Your task to perform on an android device: turn off priority inbox in the gmail app Image 0: 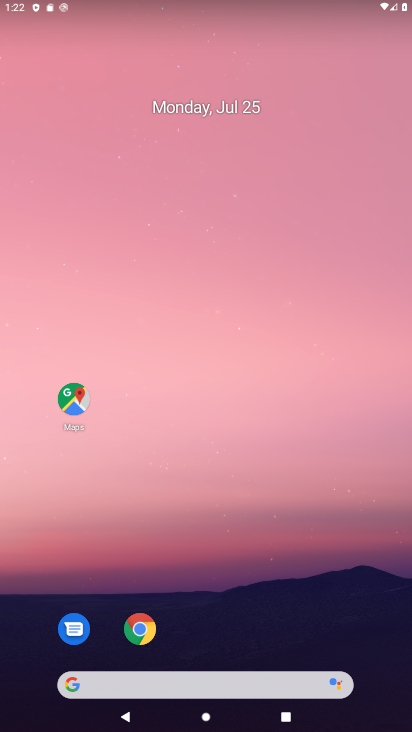
Step 0: drag from (165, 640) to (226, 175)
Your task to perform on an android device: turn off priority inbox in the gmail app Image 1: 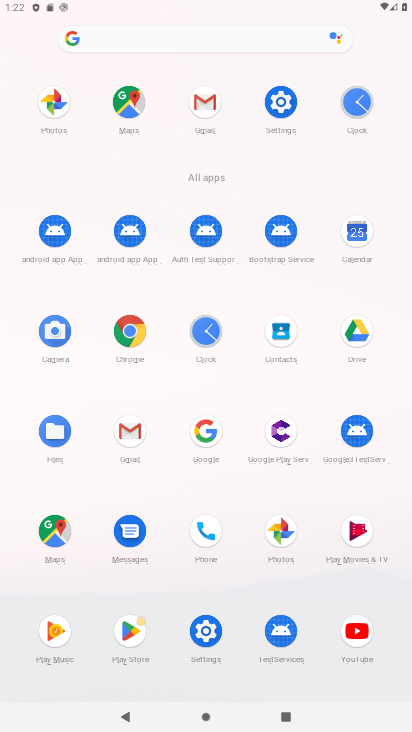
Step 1: click (119, 432)
Your task to perform on an android device: turn off priority inbox in the gmail app Image 2: 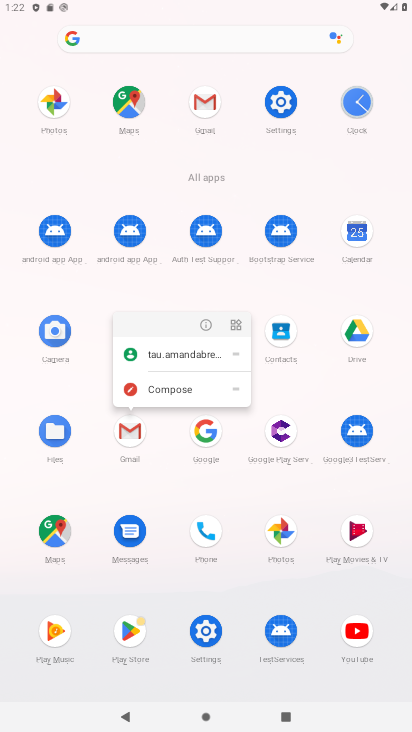
Step 2: click (204, 321)
Your task to perform on an android device: turn off priority inbox in the gmail app Image 3: 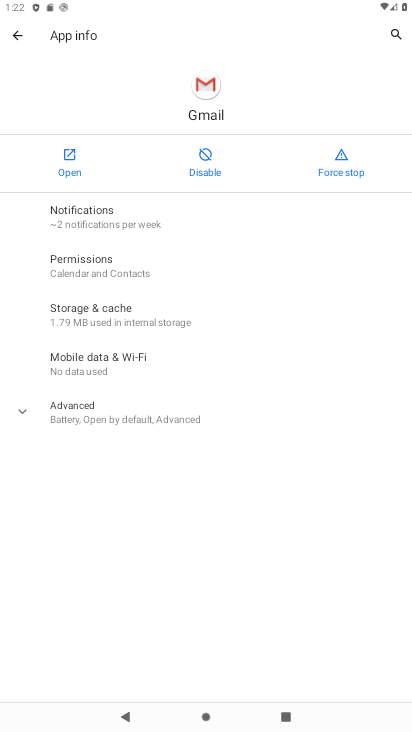
Step 3: click (41, 155)
Your task to perform on an android device: turn off priority inbox in the gmail app Image 4: 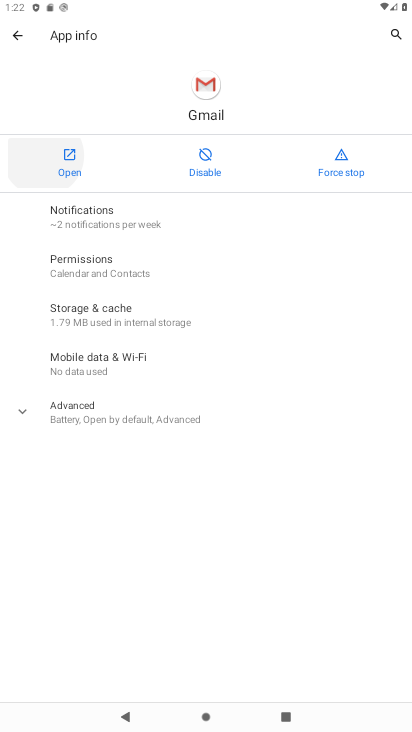
Step 4: click (57, 149)
Your task to perform on an android device: turn off priority inbox in the gmail app Image 5: 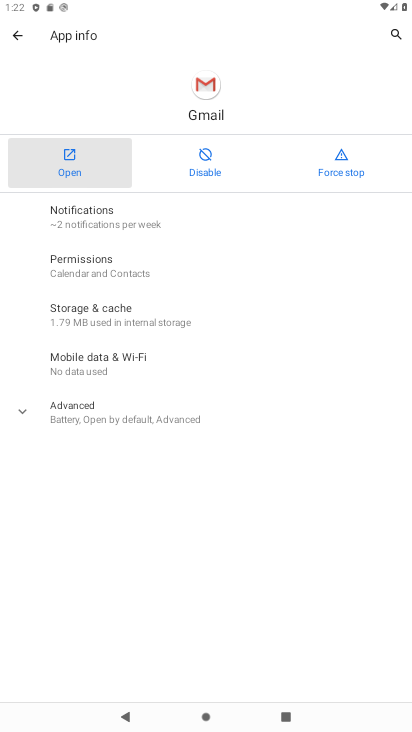
Step 5: click (57, 149)
Your task to perform on an android device: turn off priority inbox in the gmail app Image 6: 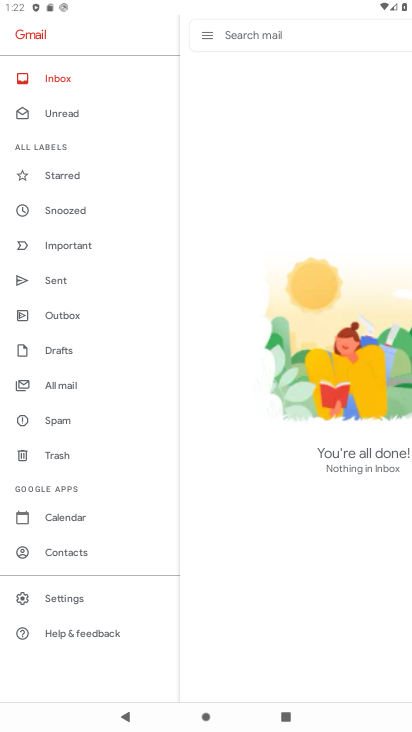
Step 6: click (79, 596)
Your task to perform on an android device: turn off priority inbox in the gmail app Image 7: 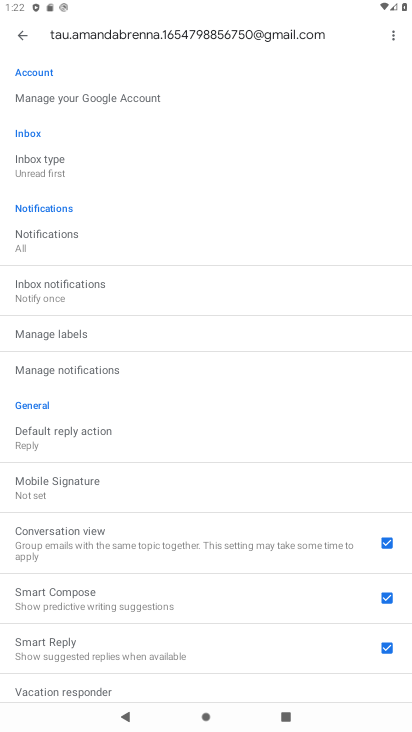
Step 7: click (92, 172)
Your task to perform on an android device: turn off priority inbox in the gmail app Image 8: 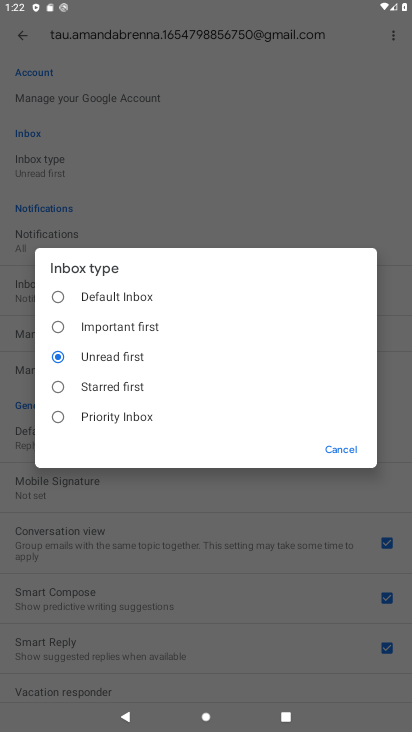
Step 8: click (75, 299)
Your task to perform on an android device: turn off priority inbox in the gmail app Image 9: 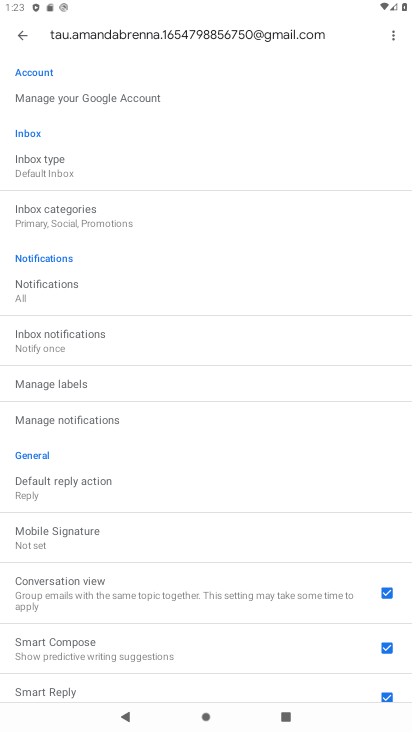
Step 9: task complete